Your task to perform on an android device: Open Yahoo.com Image 0: 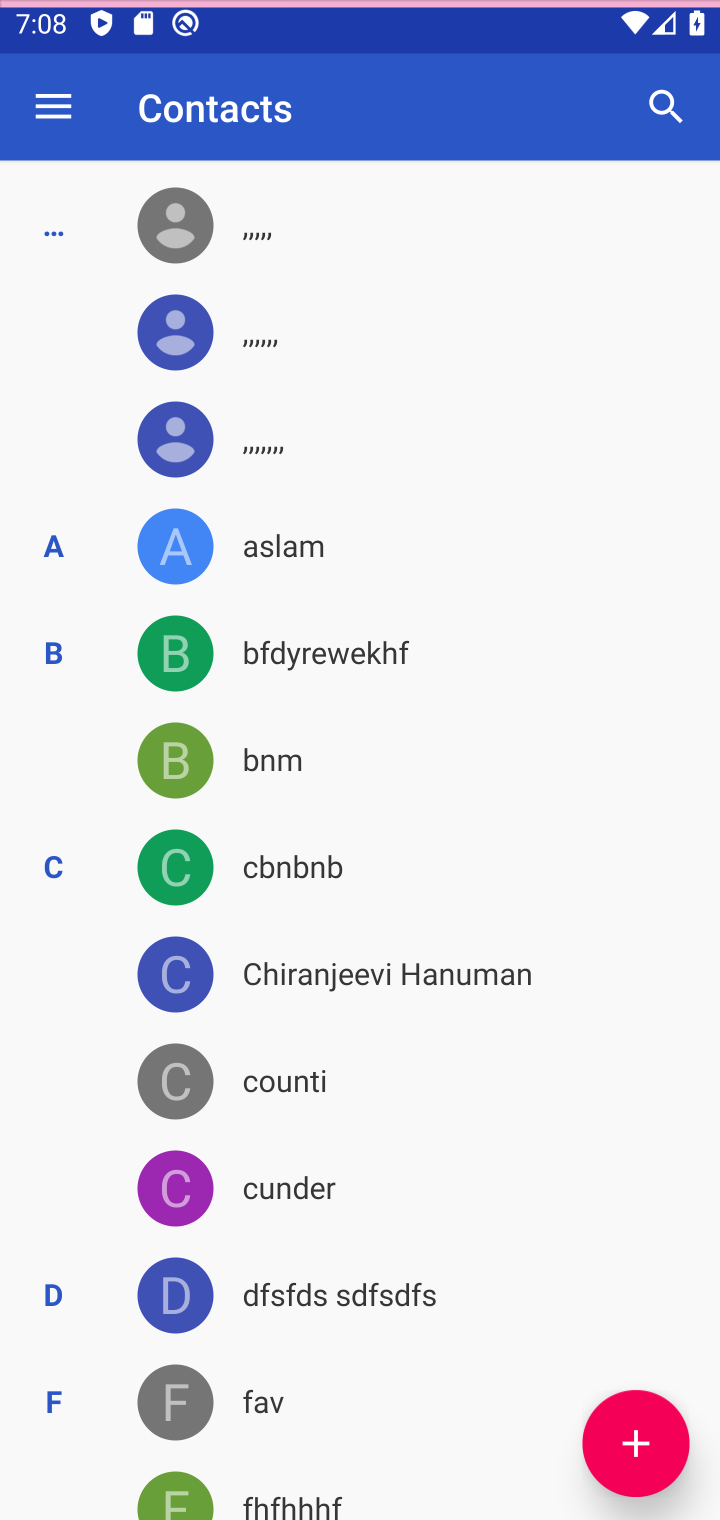
Step 0: press home button
Your task to perform on an android device: Open Yahoo.com Image 1: 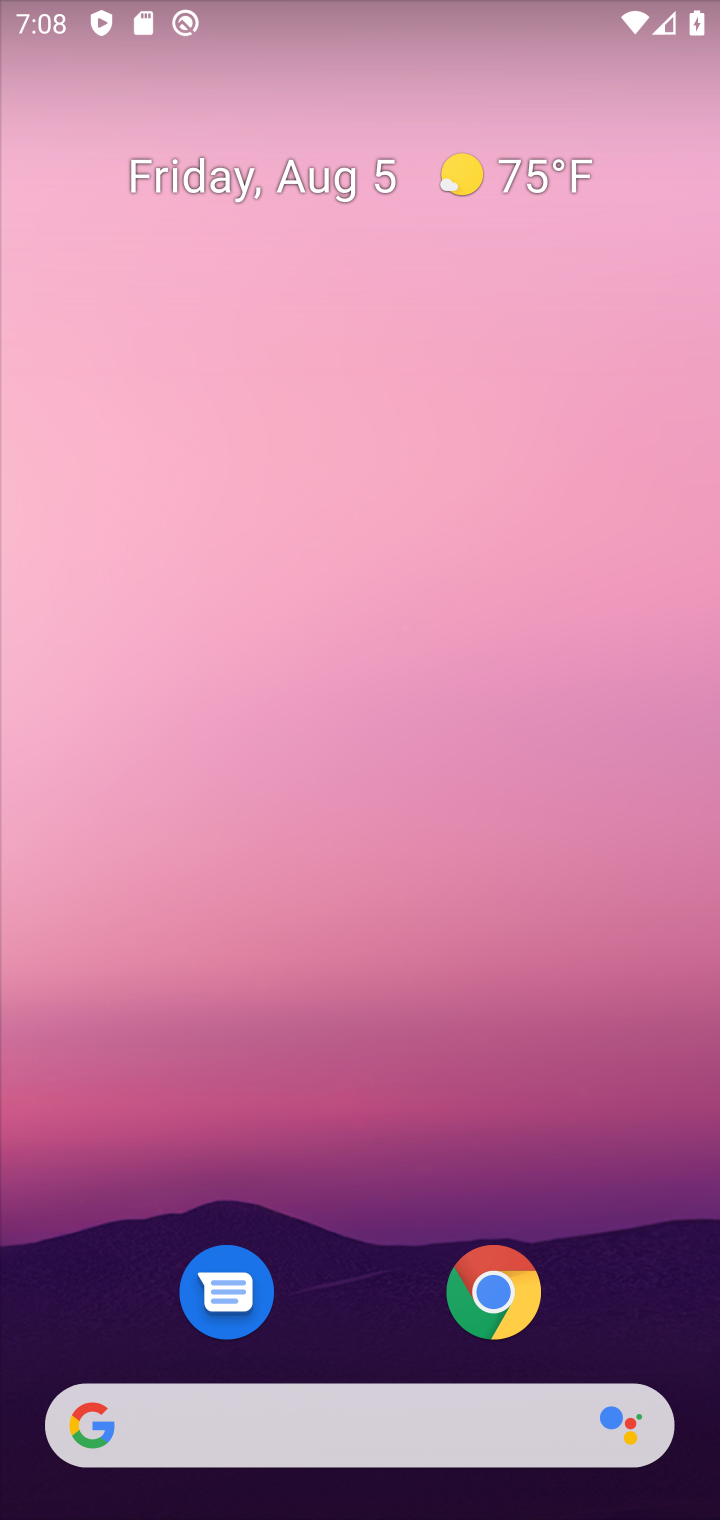
Step 1: click (417, 1430)
Your task to perform on an android device: Open Yahoo.com Image 2: 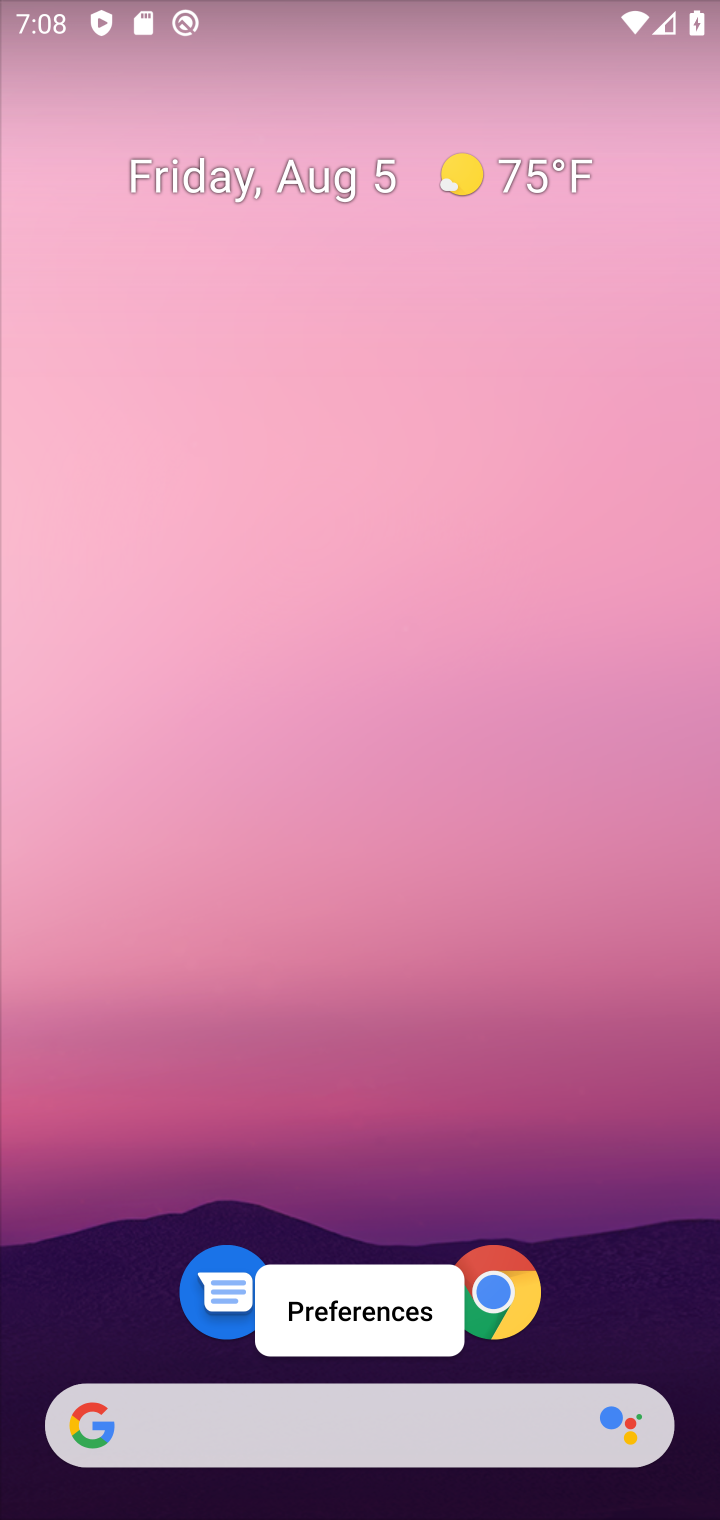
Step 2: click (390, 1439)
Your task to perform on an android device: Open Yahoo.com Image 3: 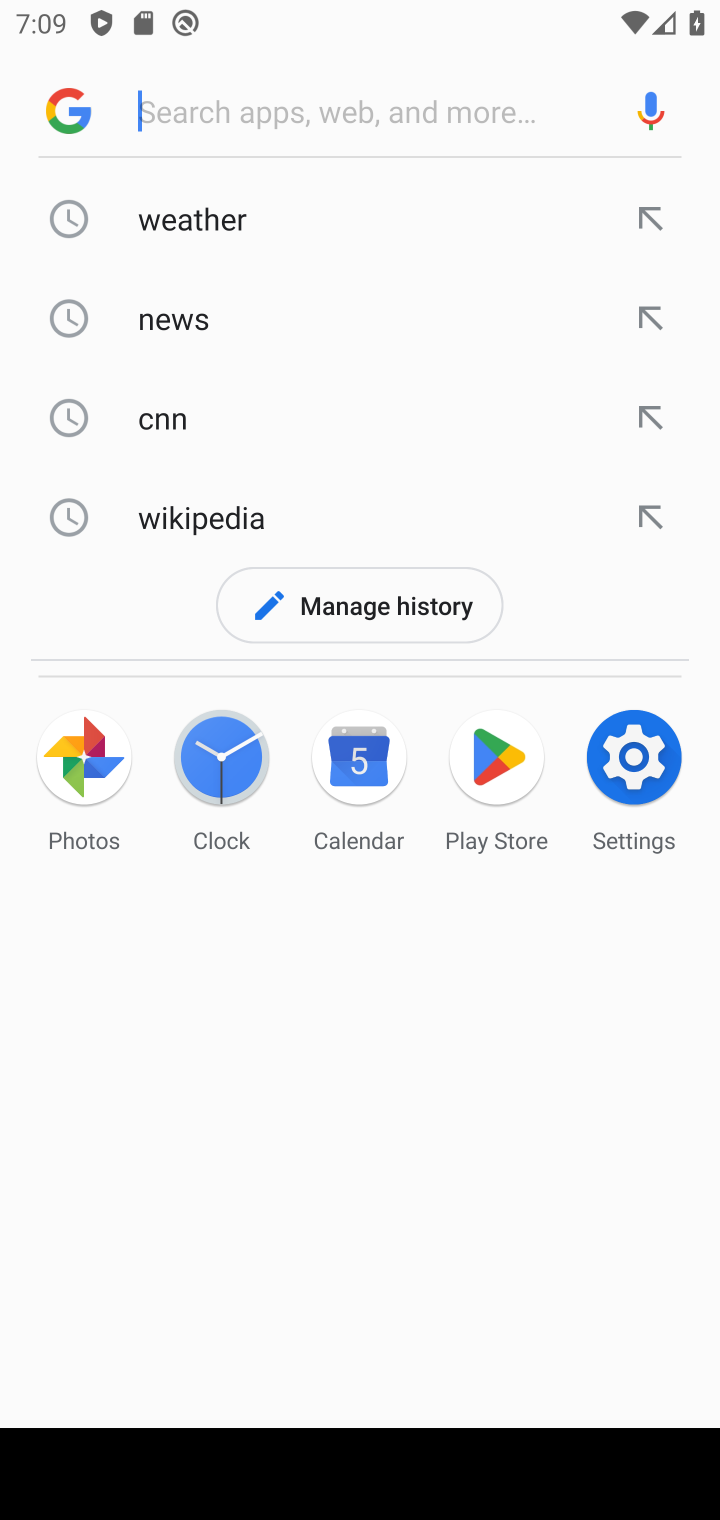
Step 3: type "yahoo.com"
Your task to perform on an android device: Open Yahoo.com Image 4: 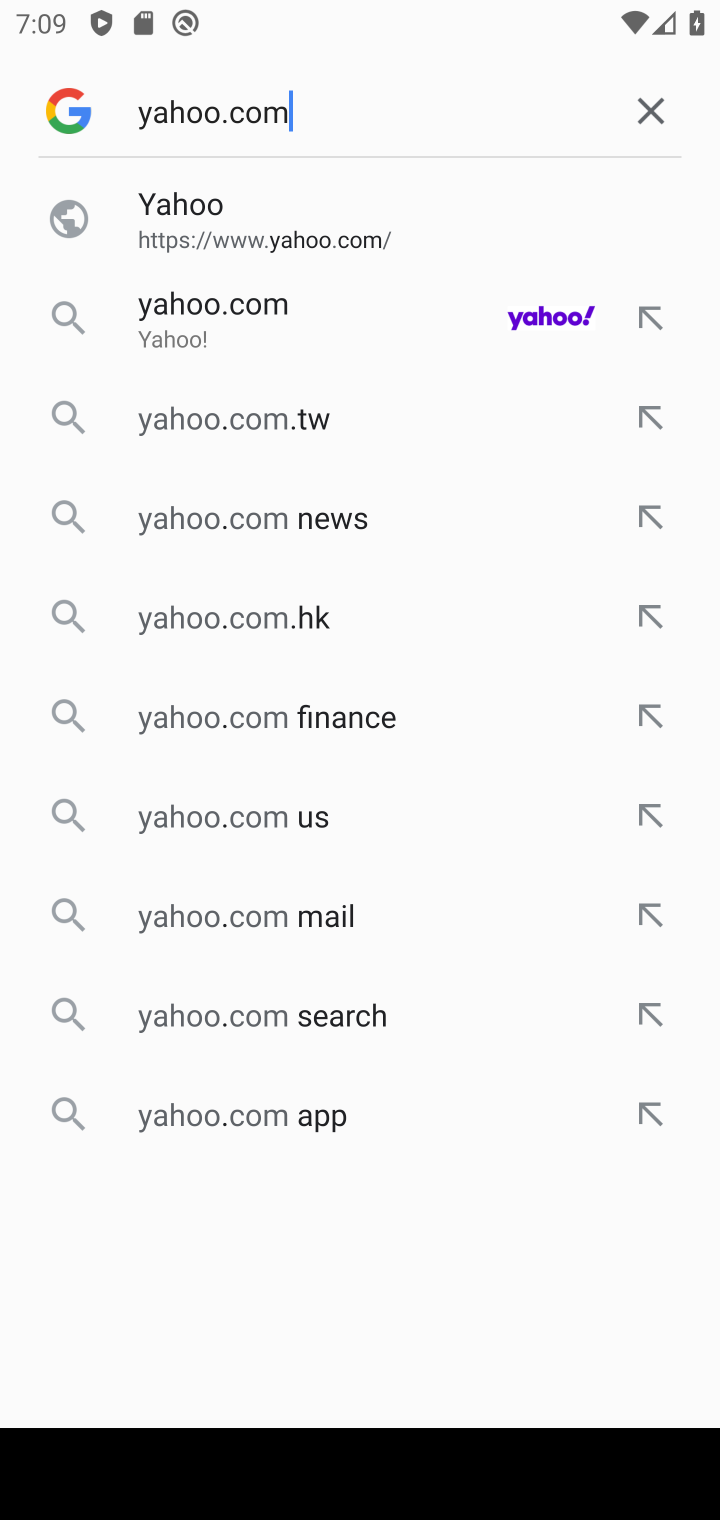
Step 4: click (427, 316)
Your task to perform on an android device: Open Yahoo.com Image 5: 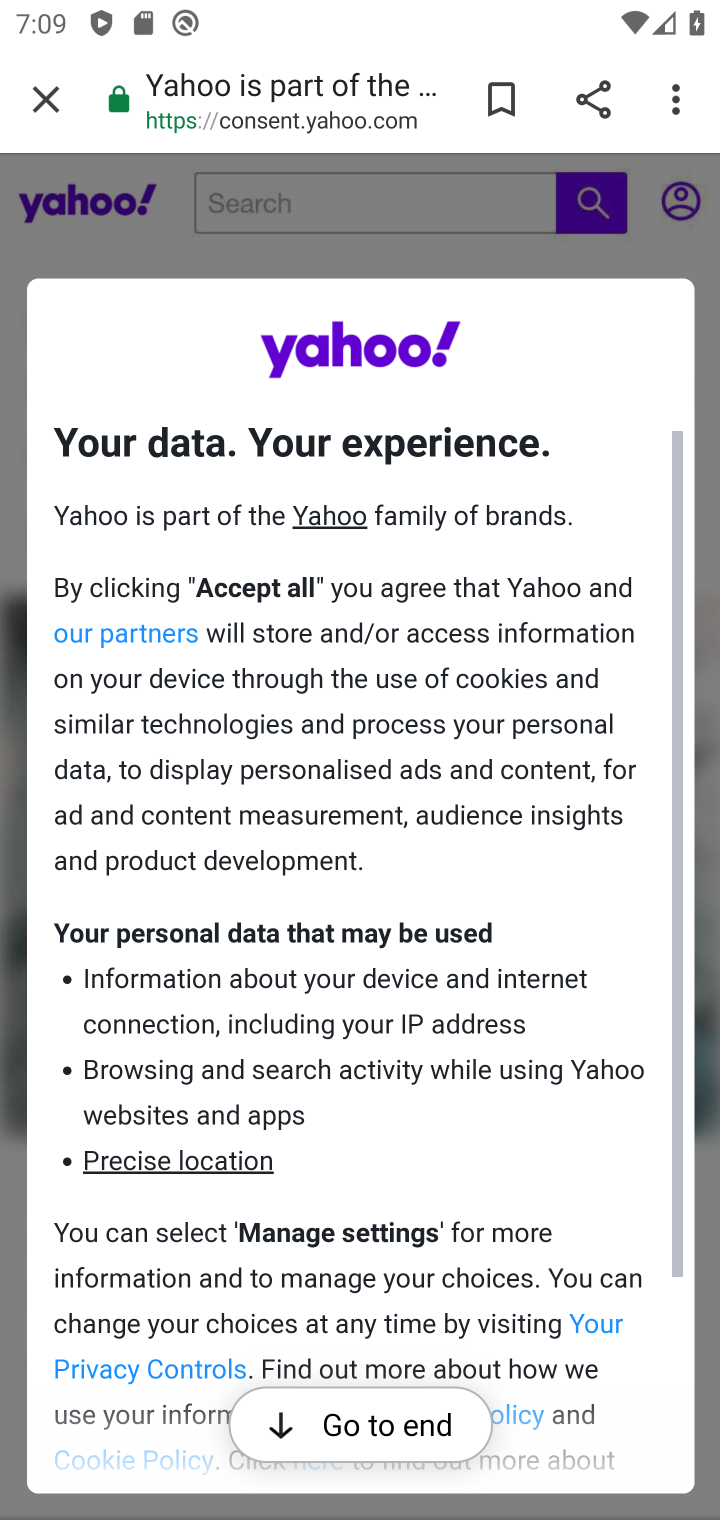
Step 5: click (435, 1410)
Your task to perform on an android device: Open Yahoo.com Image 6: 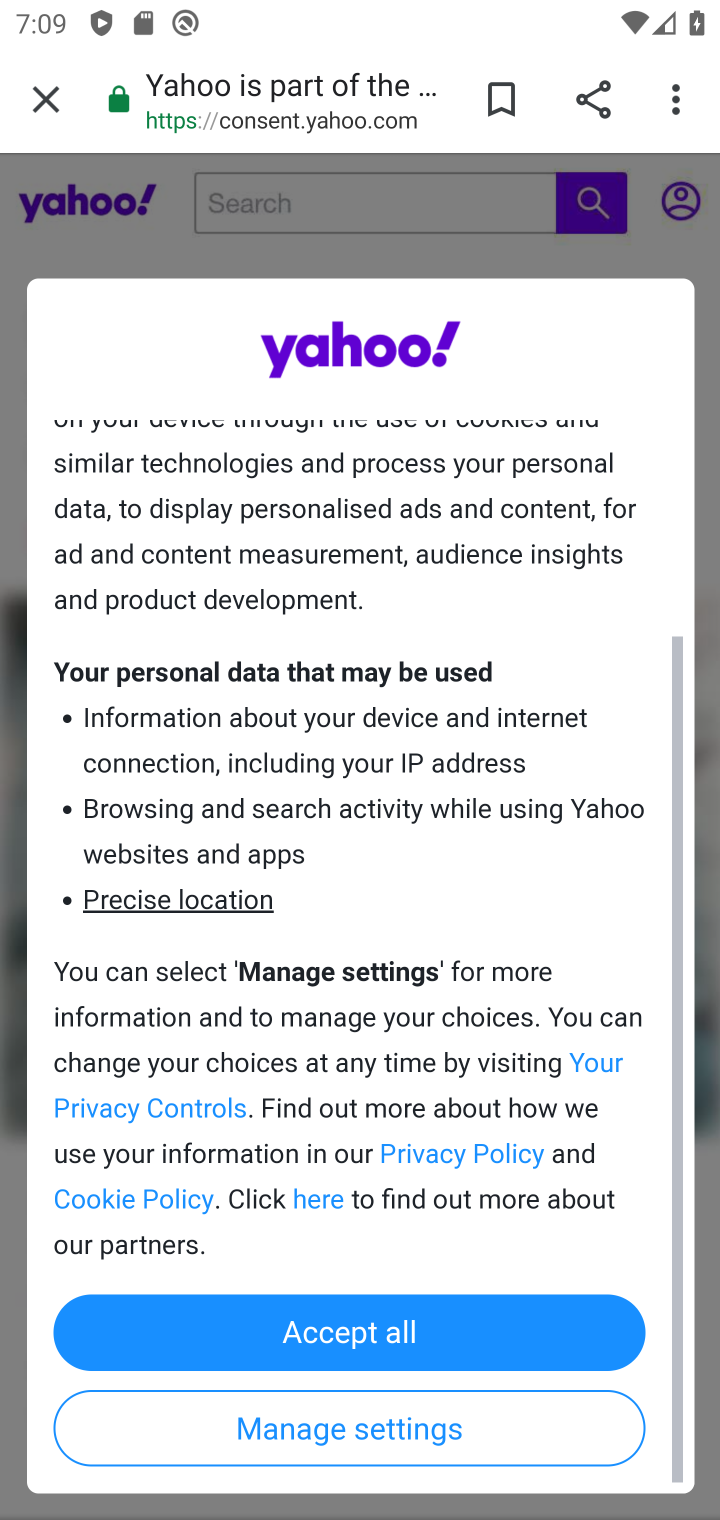
Step 6: click (441, 1330)
Your task to perform on an android device: Open Yahoo.com Image 7: 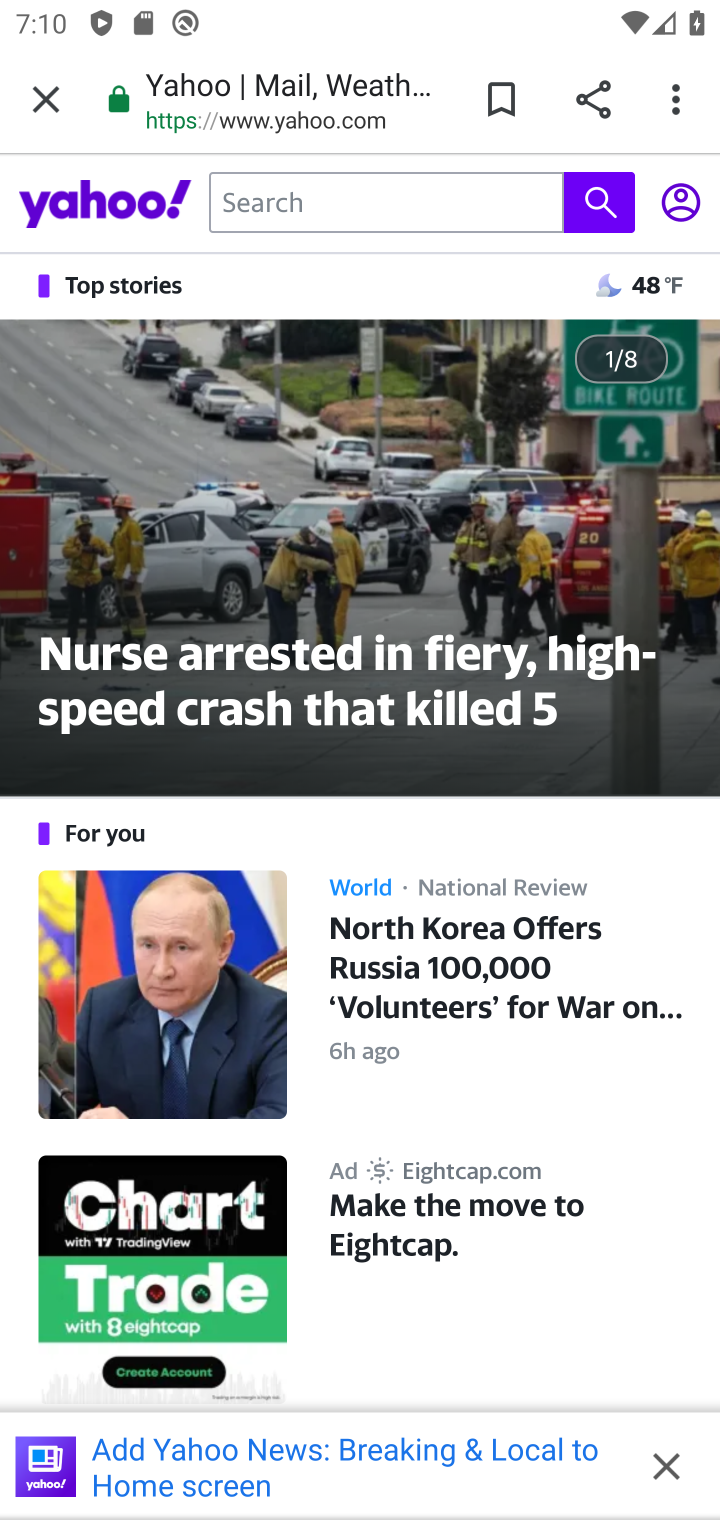
Step 7: task complete